Your task to perform on an android device: Search for sushi restaurants on Maps Image 0: 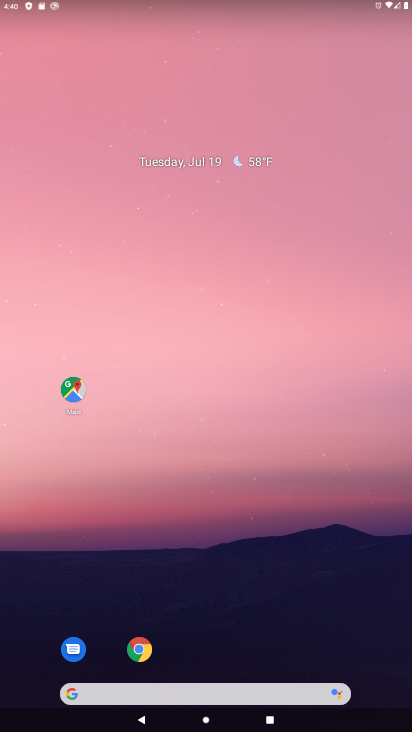
Step 0: click (75, 392)
Your task to perform on an android device: Search for sushi restaurants on Maps Image 1: 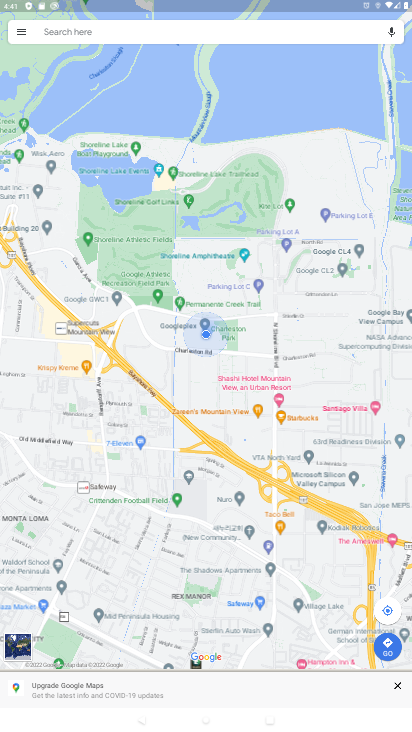
Step 1: click (109, 33)
Your task to perform on an android device: Search for sushi restaurants on Maps Image 2: 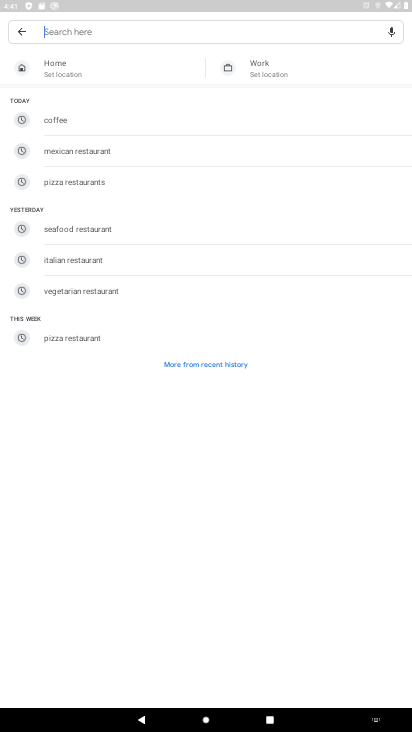
Step 2: type "sushi restaurants"
Your task to perform on an android device: Search for sushi restaurants on Maps Image 3: 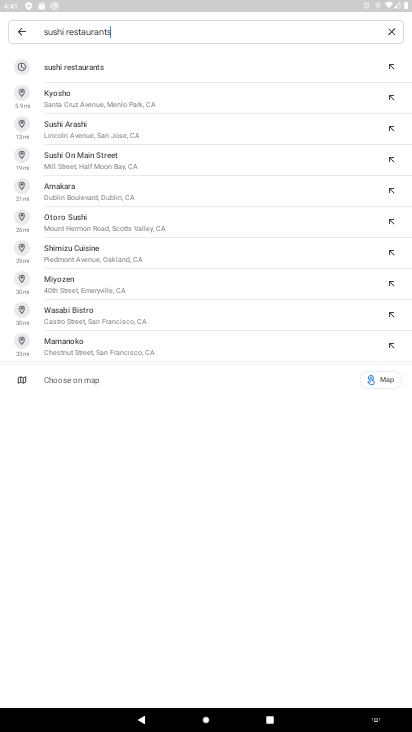
Step 3: click (68, 65)
Your task to perform on an android device: Search for sushi restaurants on Maps Image 4: 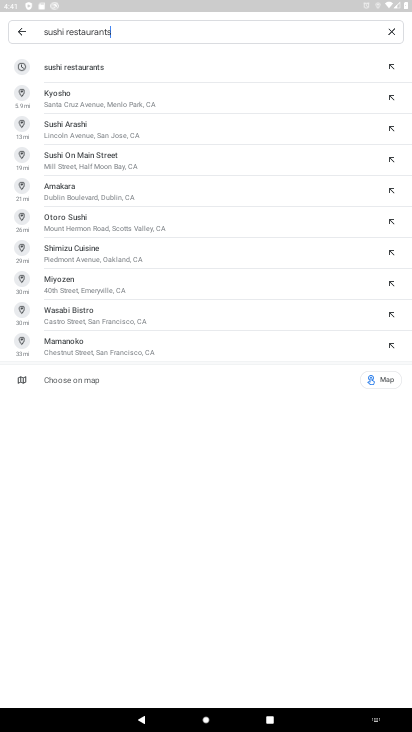
Step 4: click (80, 67)
Your task to perform on an android device: Search for sushi restaurants on Maps Image 5: 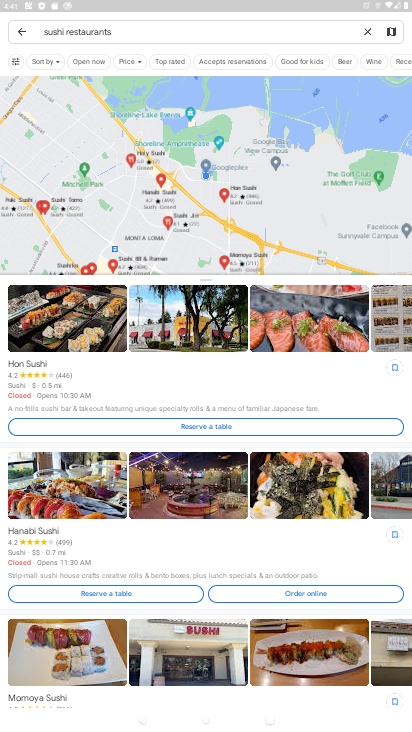
Step 5: task complete